Your task to perform on an android device: Go to Maps Image 0: 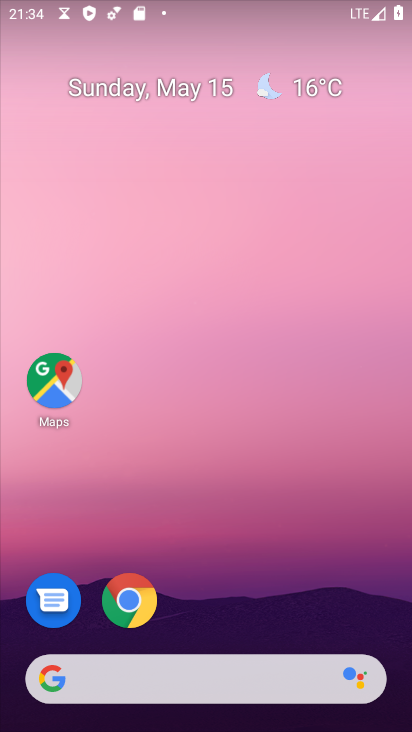
Step 0: click (68, 385)
Your task to perform on an android device: Go to Maps Image 1: 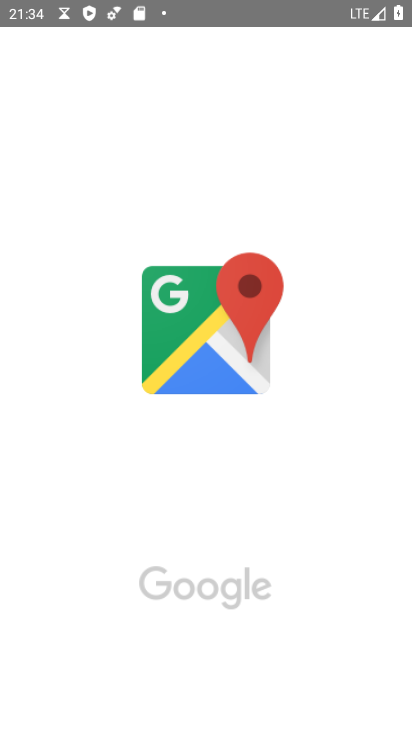
Step 1: task complete